Your task to perform on an android device: Is it going to rain this weekend? Image 0: 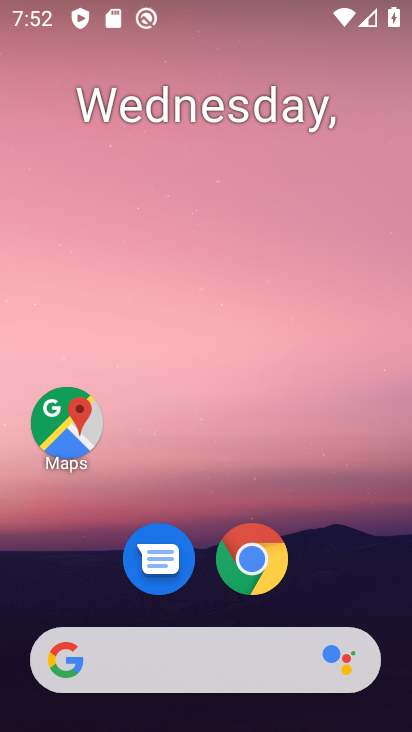
Step 0: drag from (176, 564) to (223, 12)
Your task to perform on an android device: Is it going to rain this weekend? Image 1: 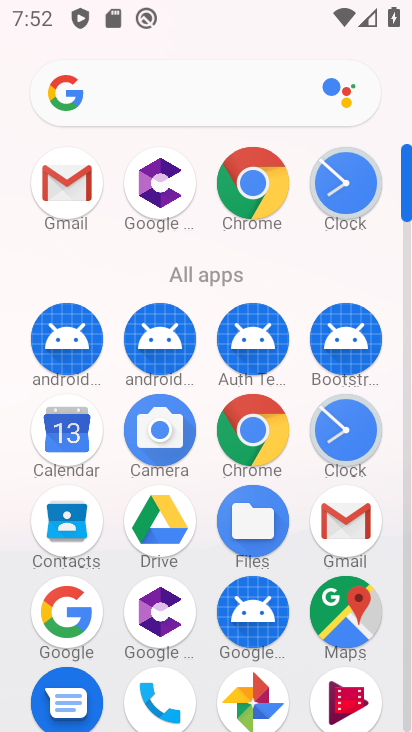
Step 1: click (128, 102)
Your task to perform on an android device: Is it going to rain this weekend? Image 2: 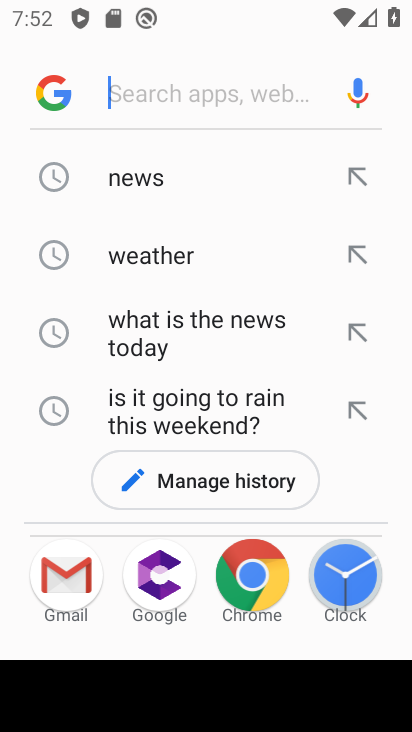
Step 2: click (146, 246)
Your task to perform on an android device: Is it going to rain this weekend? Image 3: 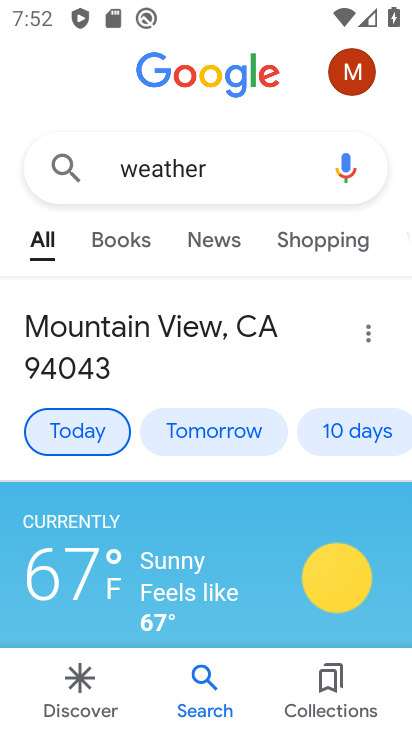
Step 3: click (366, 427)
Your task to perform on an android device: Is it going to rain this weekend? Image 4: 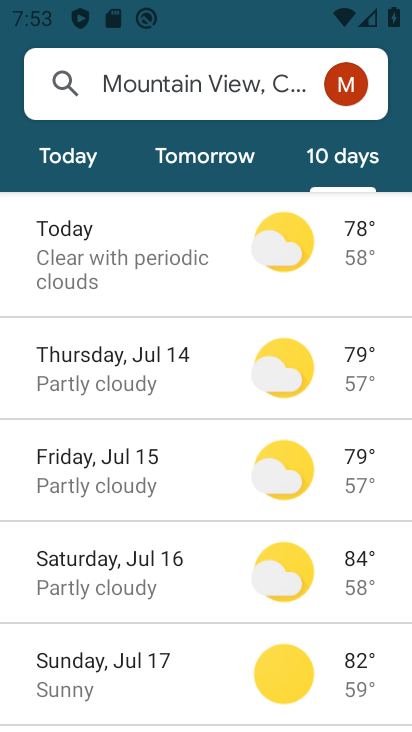
Step 4: task complete